Your task to perform on an android device: turn off priority inbox in the gmail app Image 0: 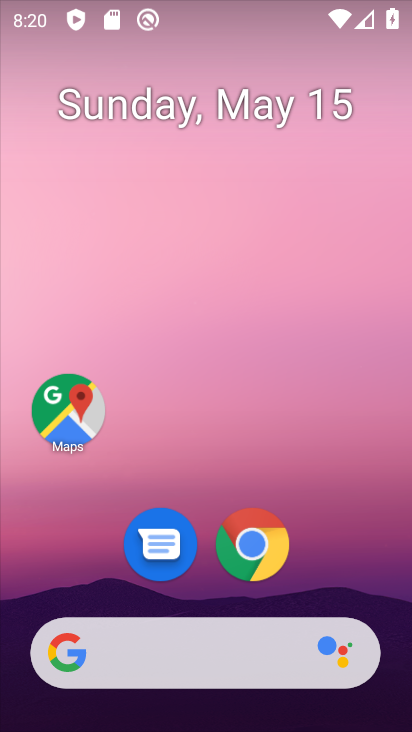
Step 0: drag from (347, 586) to (347, 69)
Your task to perform on an android device: turn off priority inbox in the gmail app Image 1: 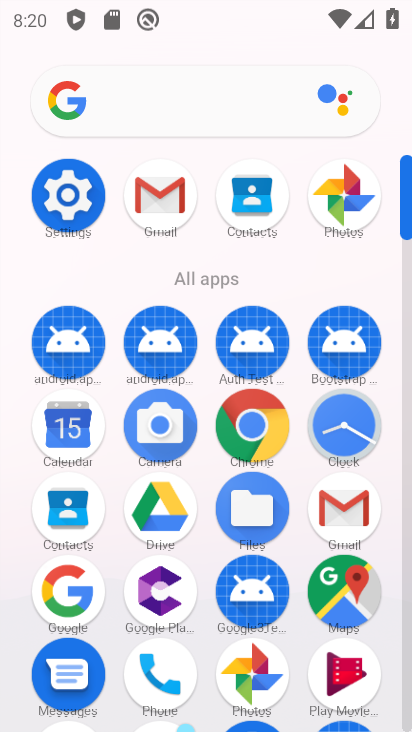
Step 1: click (329, 504)
Your task to perform on an android device: turn off priority inbox in the gmail app Image 2: 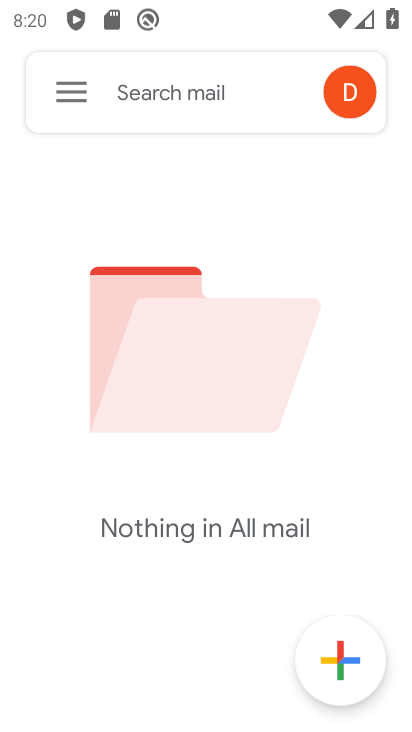
Step 2: click (74, 103)
Your task to perform on an android device: turn off priority inbox in the gmail app Image 3: 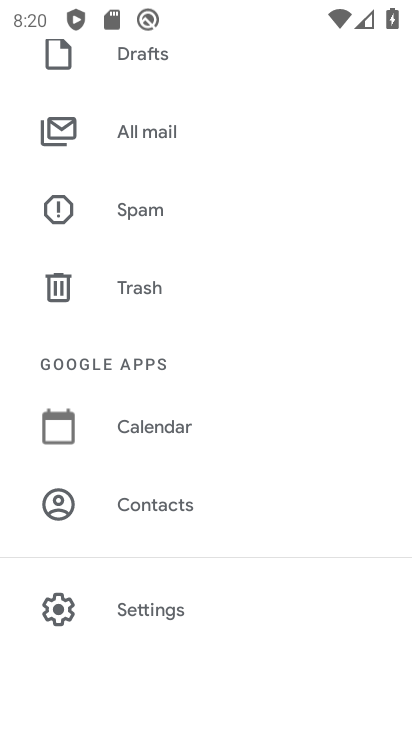
Step 3: click (132, 602)
Your task to perform on an android device: turn off priority inbox in the gmail app Image 4: 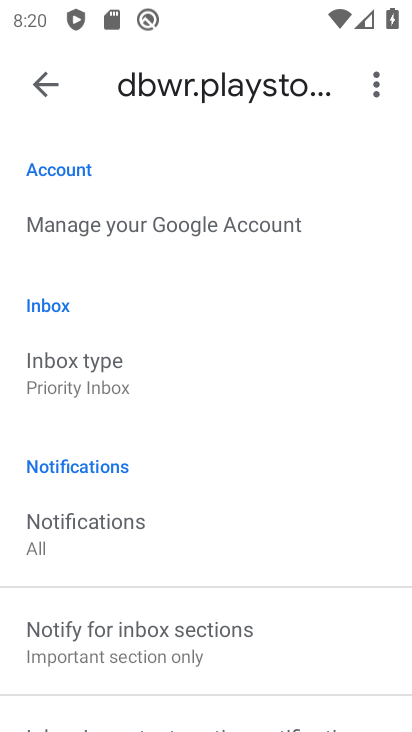
Step 4: click (70, 384)
Your task to perform on an android device: turn off priority inbox in the gmail app Image 5: 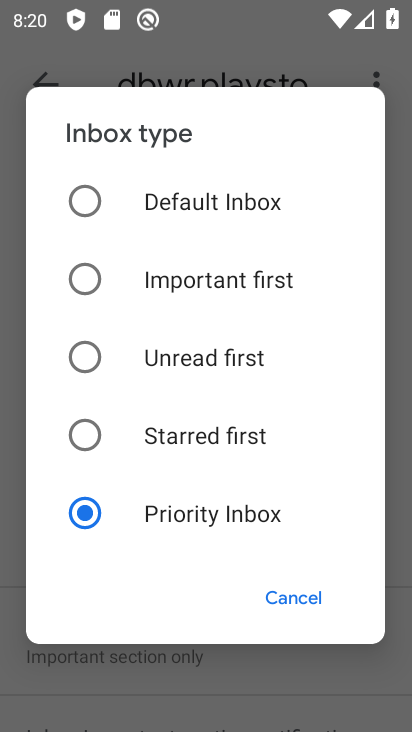
Step 5: click (192, 217)
Your task to perform on an android device: turn off priority inbox in the gmail app Image 6: 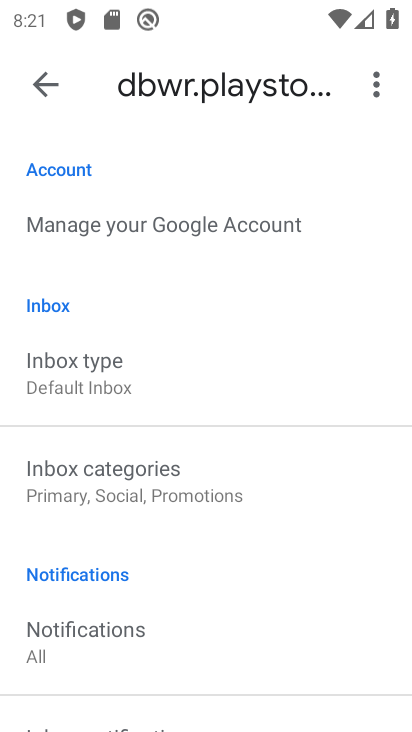
Step 6: task complete